Your task to perform on an android device: Add alienware aurora to the cart on ebay.com, then select checkout. Image 0: 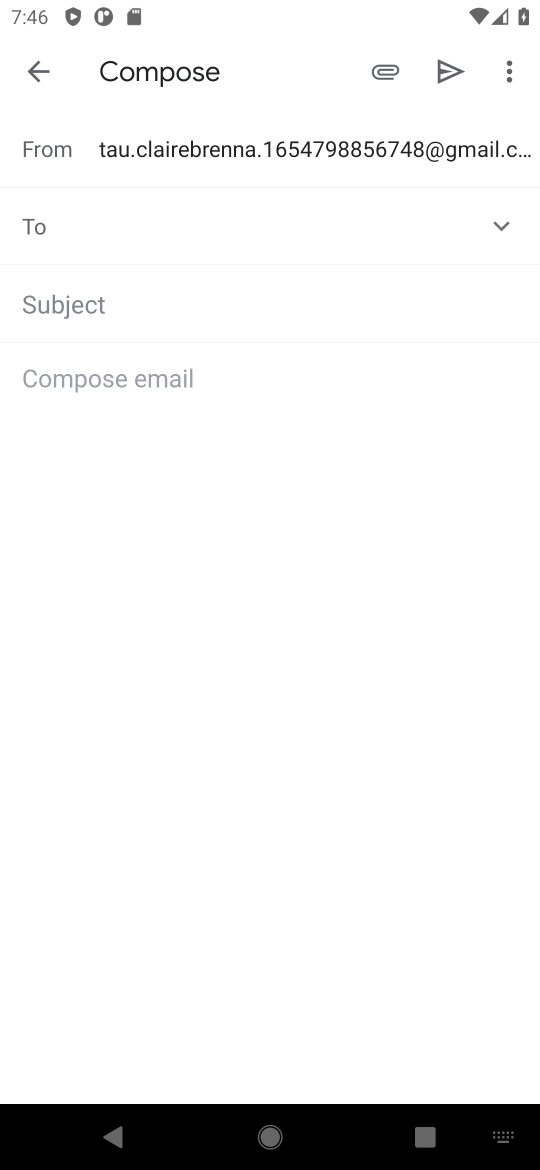
Step 0: press home button
Your task to perform on an android device: Add alienware aurora to the cart on ebay.com, then select checkout. Image 1: 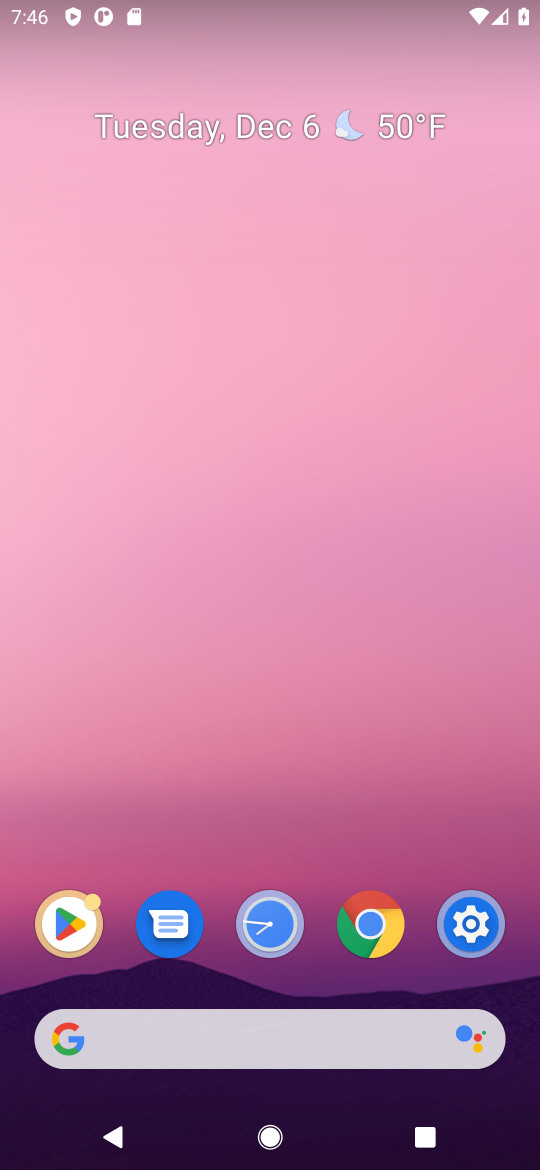
Step 1: click (294, 1056)
Your task to perform on an android device: Add alienware aurora to the cart on ebay.com, then select checkout. Image 2: 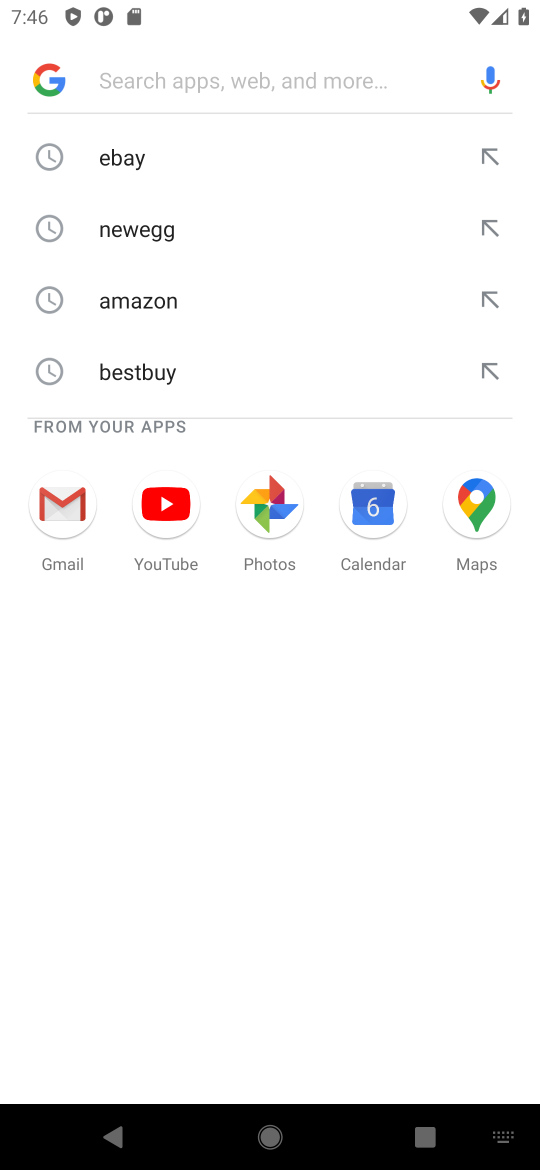
Step 2: type "ebay.com"
Your task to perform on an android device: Add alienware aurora to the cart on ebay.com, then select checkout. Image 3: 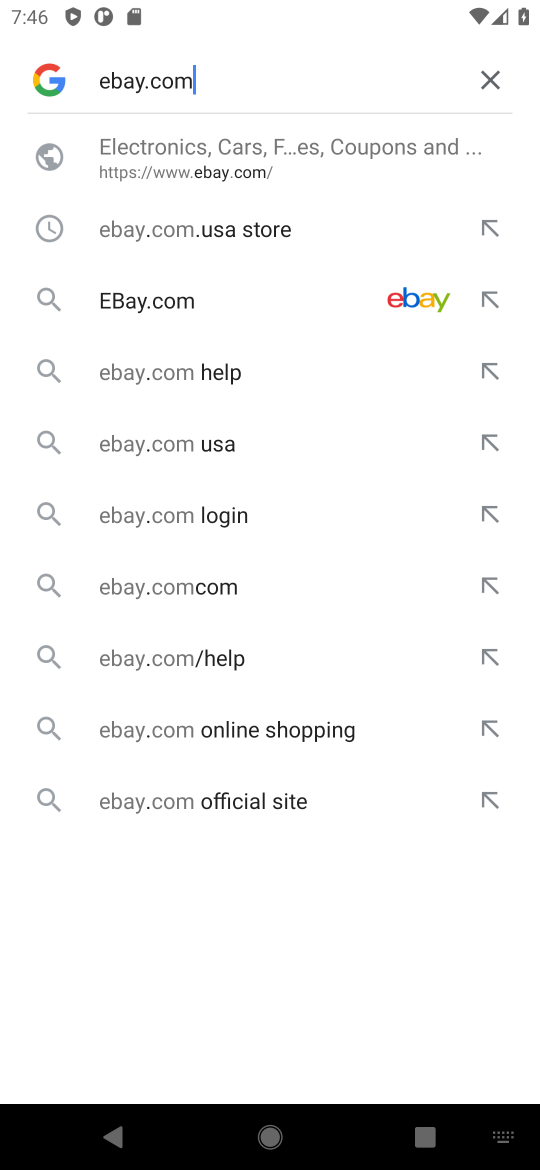
Step 3: click (191, 163)
Your task to perform on an android device: Add alienware aurora to the cart on ebay.com, then select checkout. Image 4: 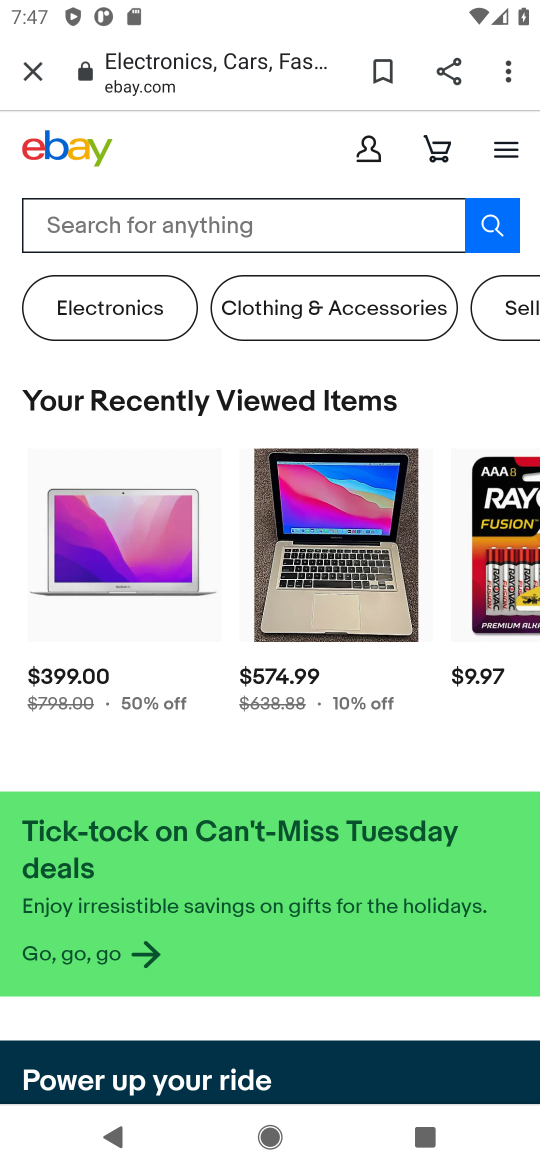
Step 4: task complete